Your task to perform on an android device: Open Google Chrome Image 0: 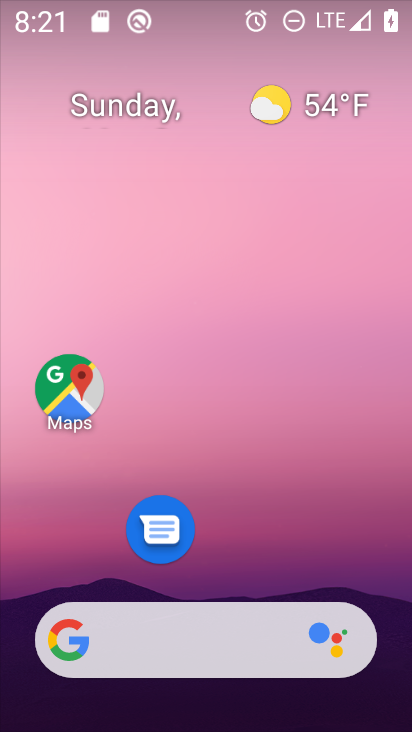
Step 0: drag from (227, 574) to (339, 6)
Your task to perform on an android device: Open Google Chrome Image 1: 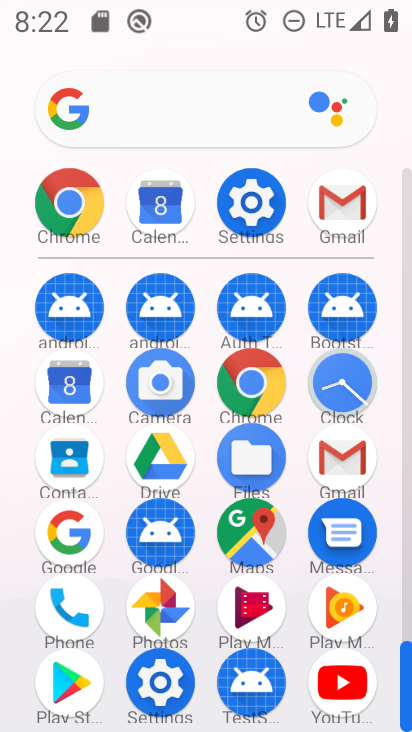
Step 1: click (69, 206)
Your task to perform on an android device: Open Google Chrome Image 2: 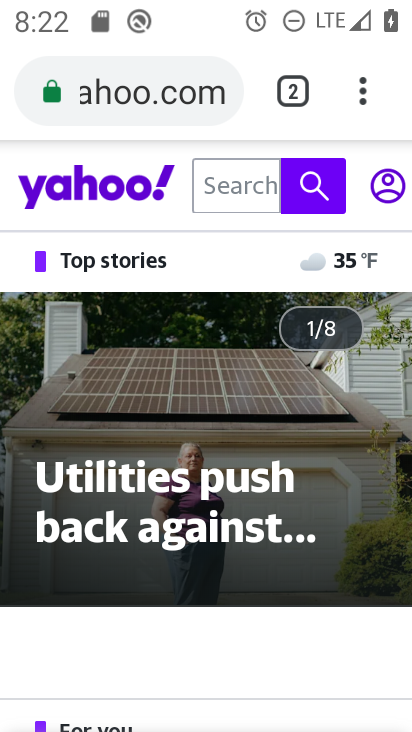
Step 2: task complete